Your task to perform on an android device: Open settings Image 0: 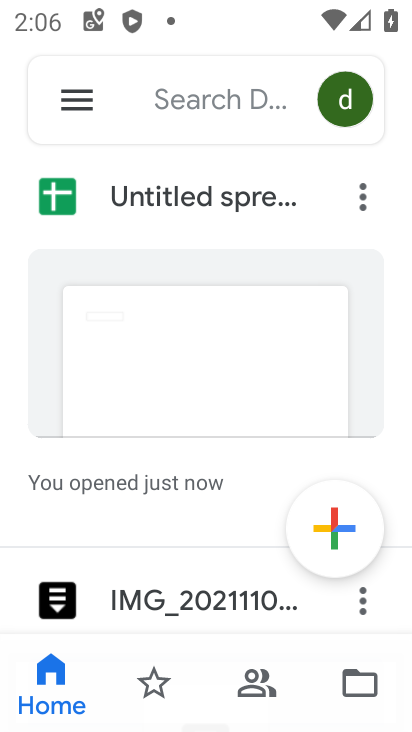
Step 0: press home button
Your task to perform on an android device: Open settings Image 1: 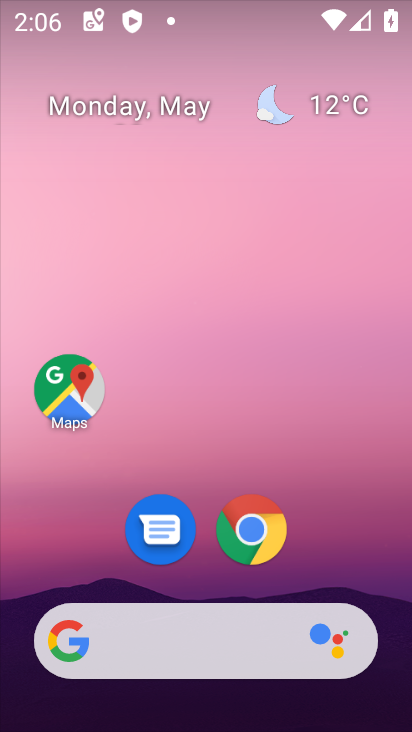
Step 1: drag from (380, 623) to (334, 142)
Your task to perform on an android device: Open settings Image 2: 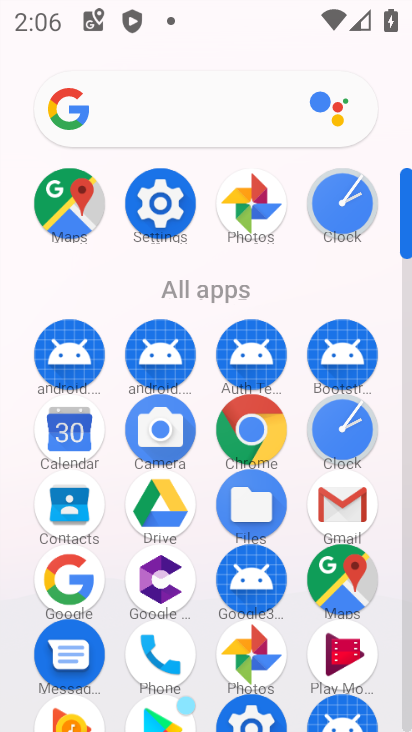
Step 2: click (404, 702)
Your task to perform on an android device: Open settings Image 3: 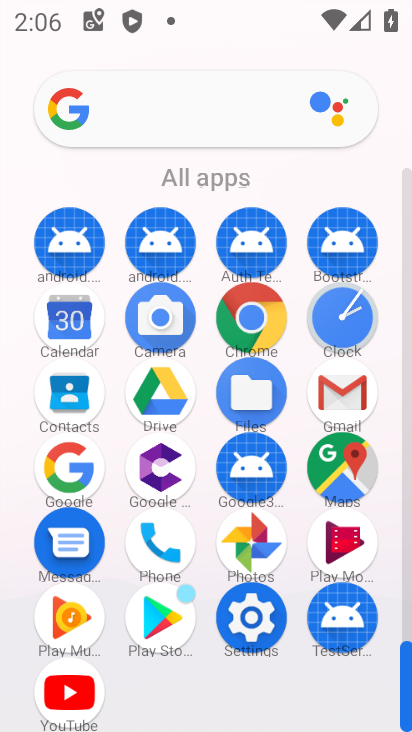
Step 3: click (251, 617)
Your task to perform on an android device: Open settings Image 4: 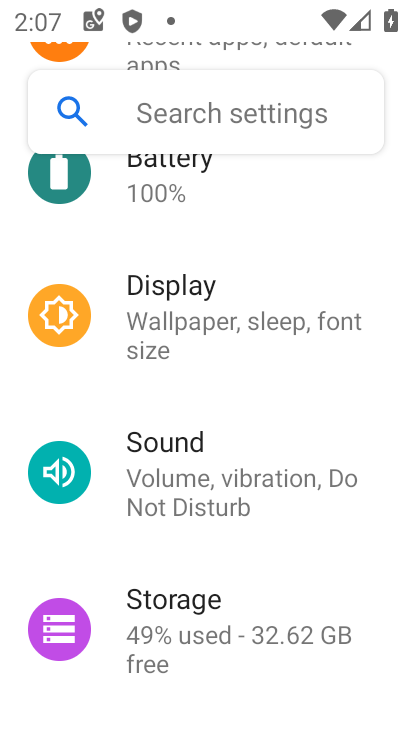
Step 4: task complete